Your task to perform on an android device: Open Chrome and go to settings Image 0: 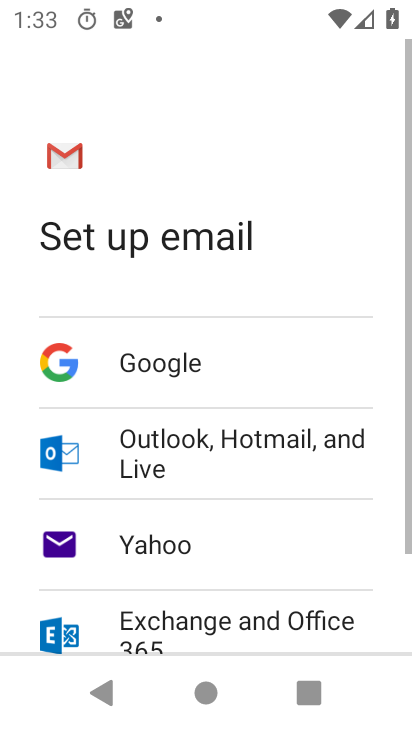
Step 0: press back button
Your task to perform on an android device: Open Chrome and go to settings Image 1: 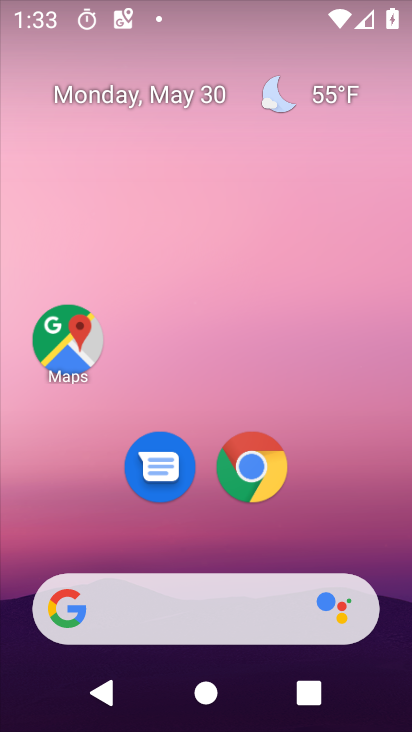
Step 1: click (237, 457)
Your task to perform on an android device: Open Chrome and go to settings Image 2: 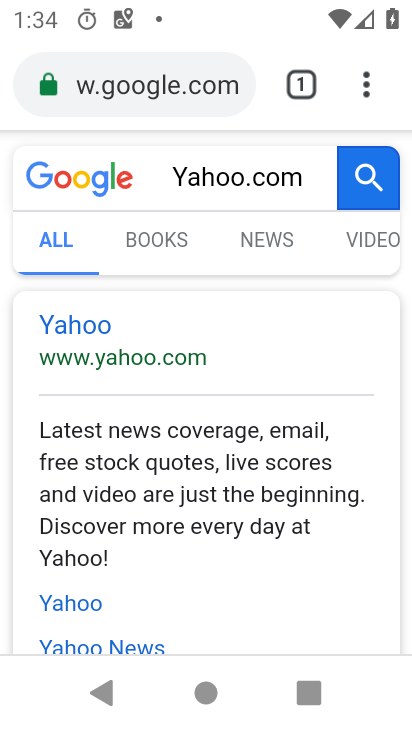
Step 2: click (362, 79)
Your task to perform on an android device: Open Chrome and go to settings Image 3: 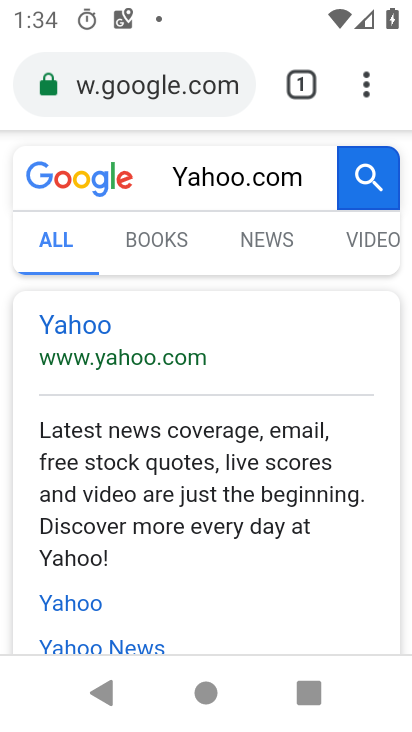
Step 3: click (370, 76)
Your task to perform on an android device: Open Chrome and go to settings Image 4: 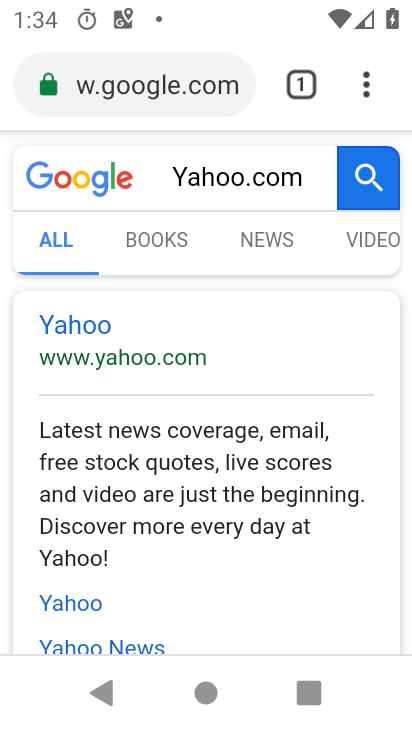
Step 4: click (364, 78)
Your task to perform on an android device: Open Chrome and go to settings Image 5: 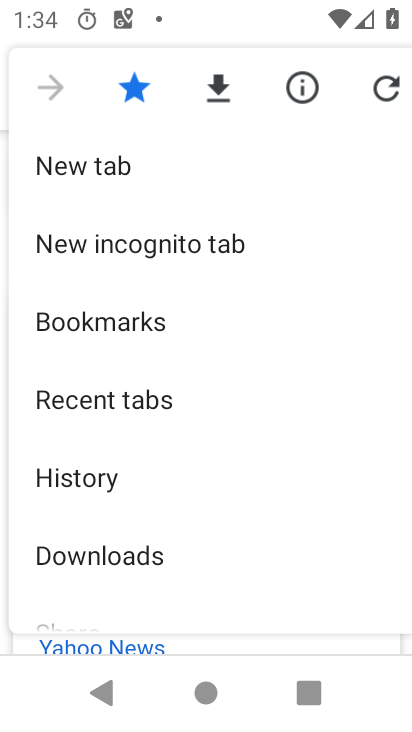
Step 5: drag from (185, 547) to (204, 255)
Your task to perform on an android device: Open Chrome and go to settings Image 6: 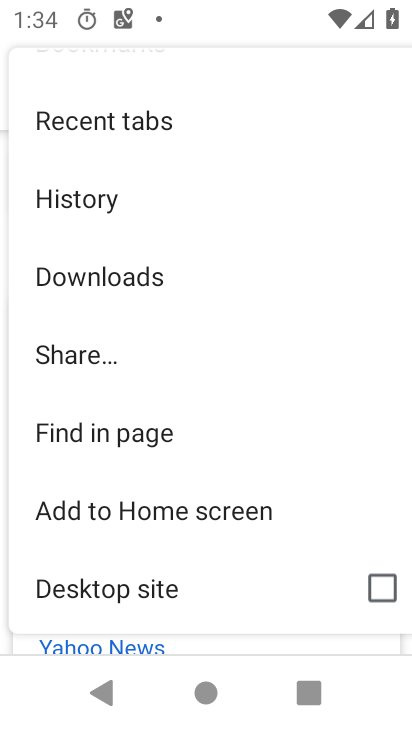
Step 6: drag from (227, 590) to (232, 279)
Your task to perform on an android device: Open Chrome and go to settings Image 7: 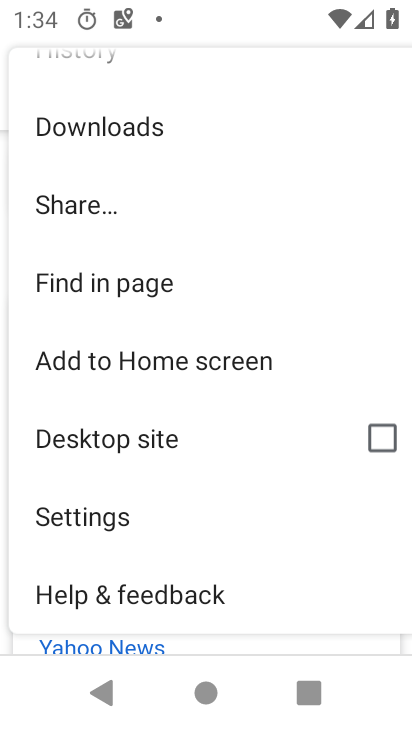
Step 7: click (92, 516)
Your task to perform on an android device: Open Chrome and go to settings Image 8: 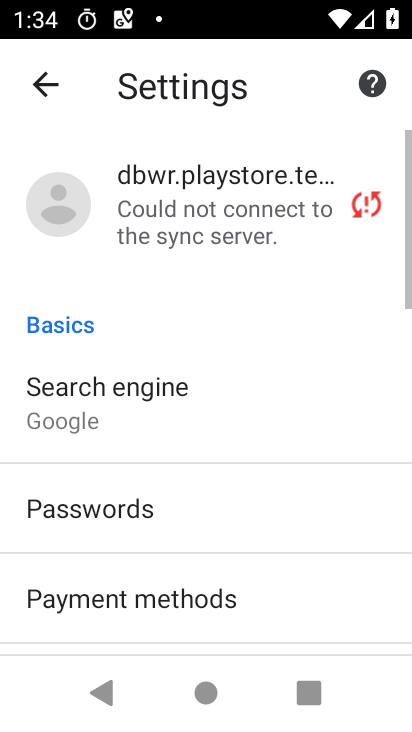
Step 8: task complete